Your task to perform on an android device: change text size in settings app Image 0: 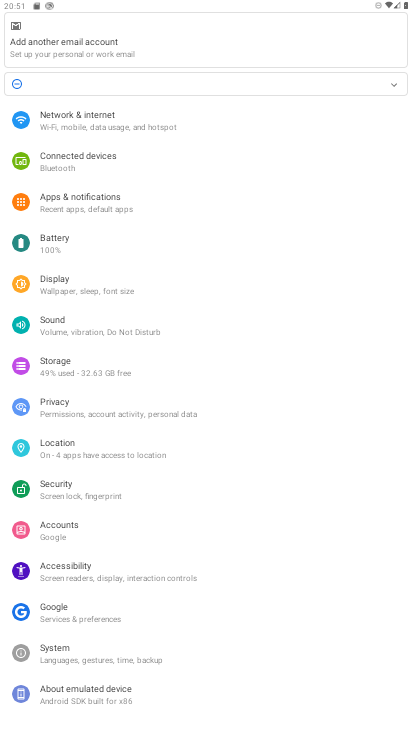
Step 0: click (83, 284)
Your task to perform on an android device: change text size in settings app Image 1: 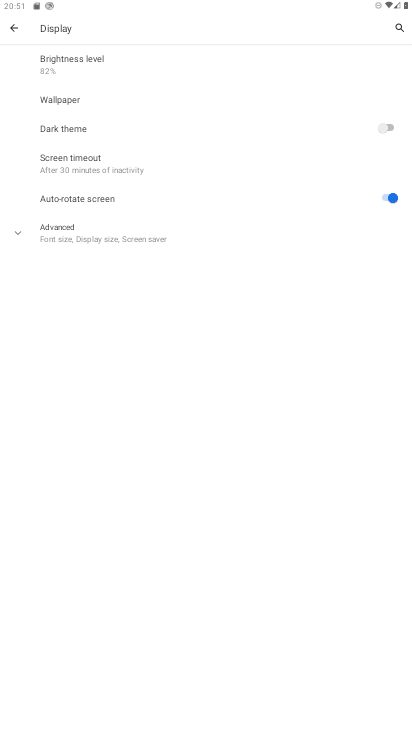
Step 1: click (136, 232)
Your task to perform on an android device: change text size in settings app Image 2: 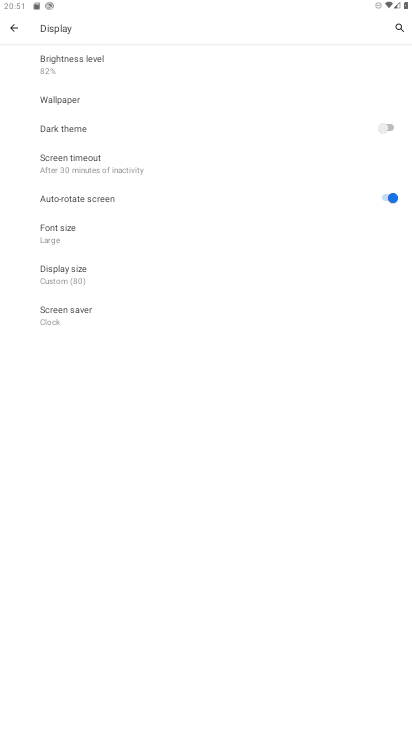
Step 2: click (85, 231)
Your task to perform on an android device: change text size in settings app Image 3: 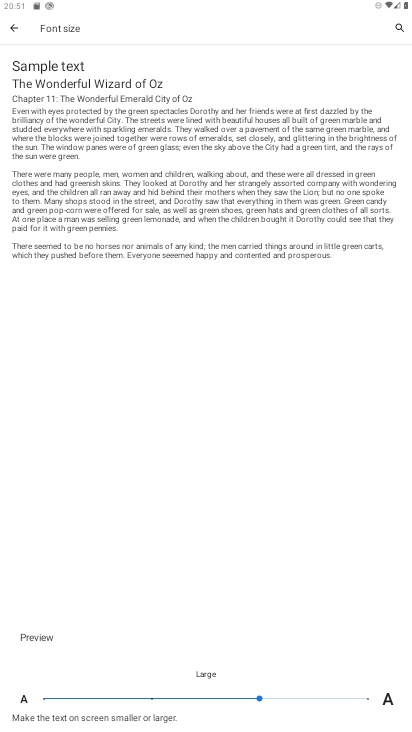
Step 3: task complete